Your task to perform on an android device: make emails show in primary in the gmail app Image 0: 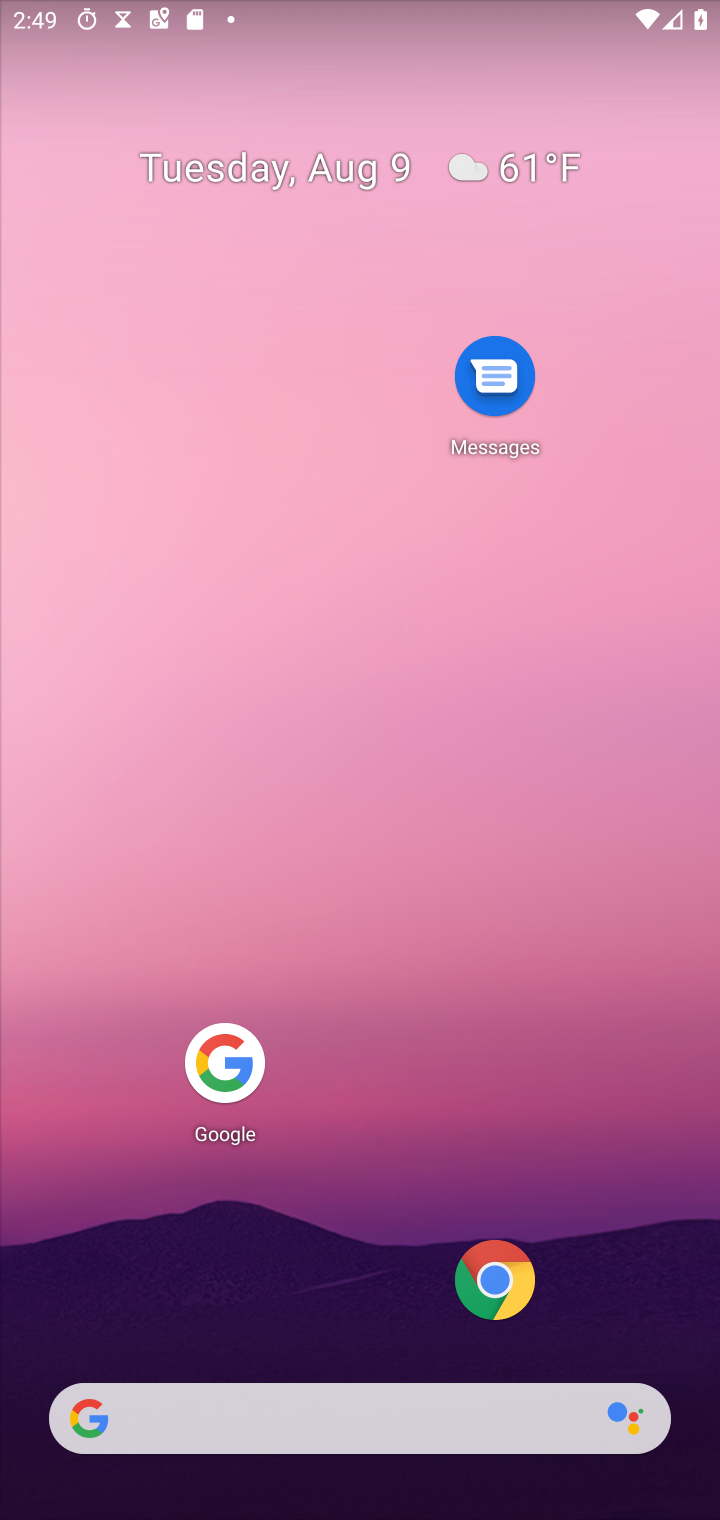
Step 0: drag from (338, 1392) to (601, 318)
Your task to perform on an android device: make emails show in primary in the gmail app Image 1: 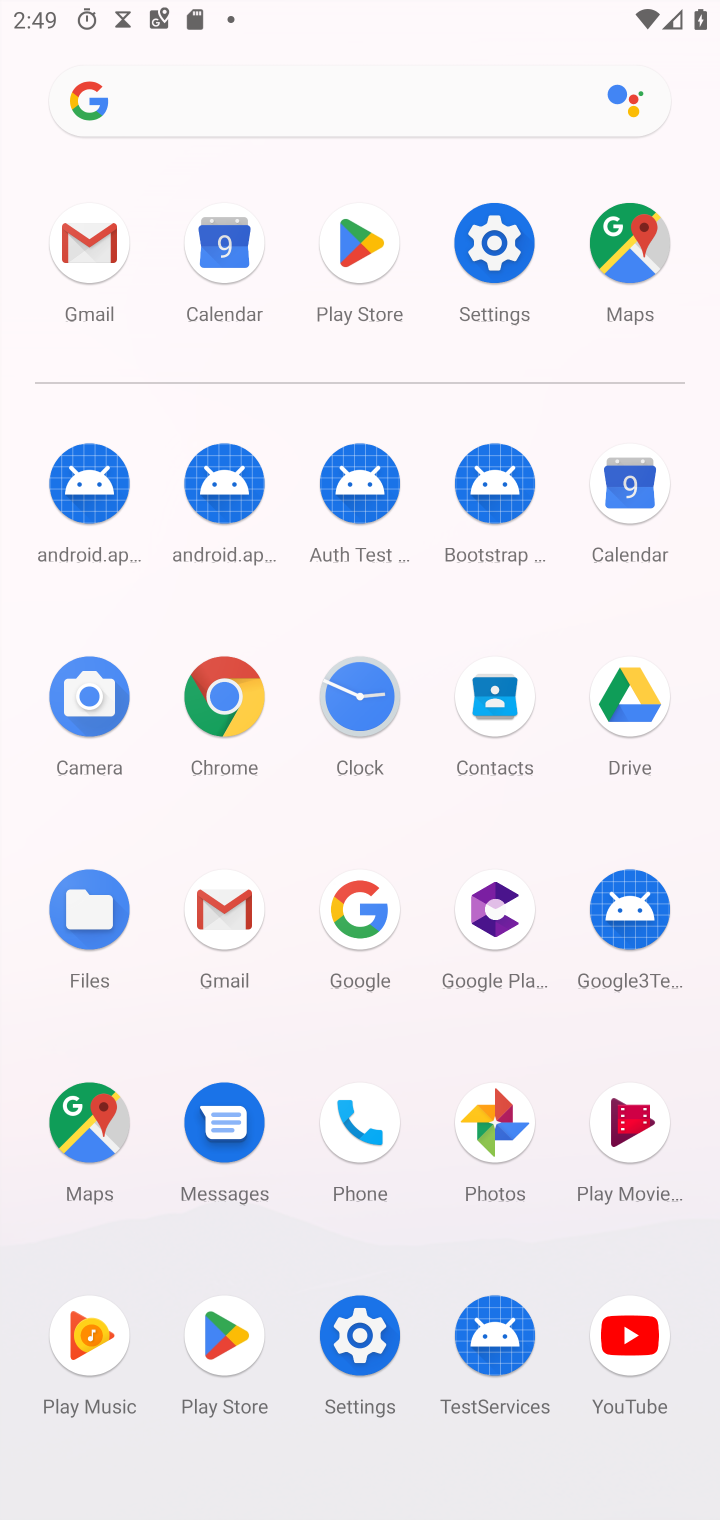
Step 1: click (87, 244)
Your task to perform on an android device: make emails show in primary in the gmail app Image 2: 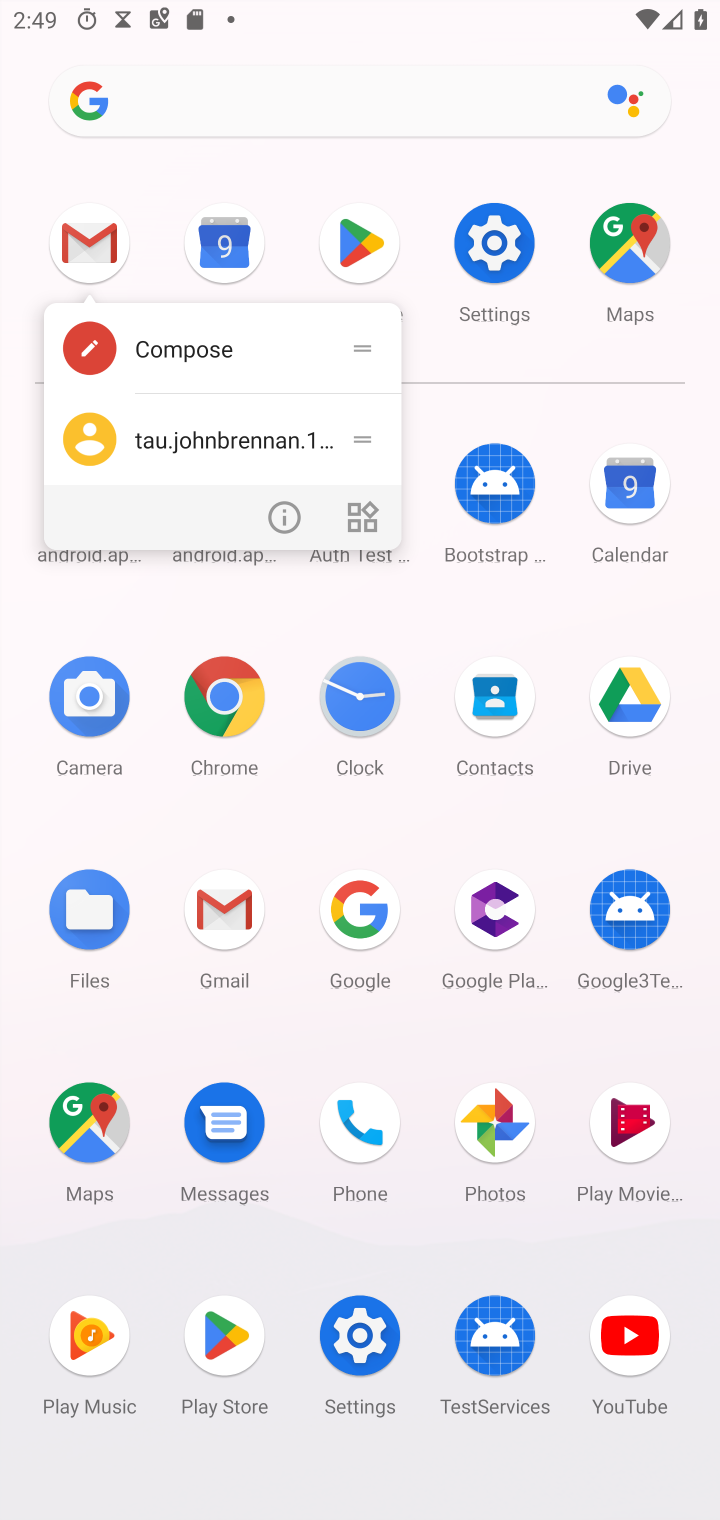
Step 2: click (87, 246)
Your task to perform on an android device: make emails show in primary in the gmail app Image 3: 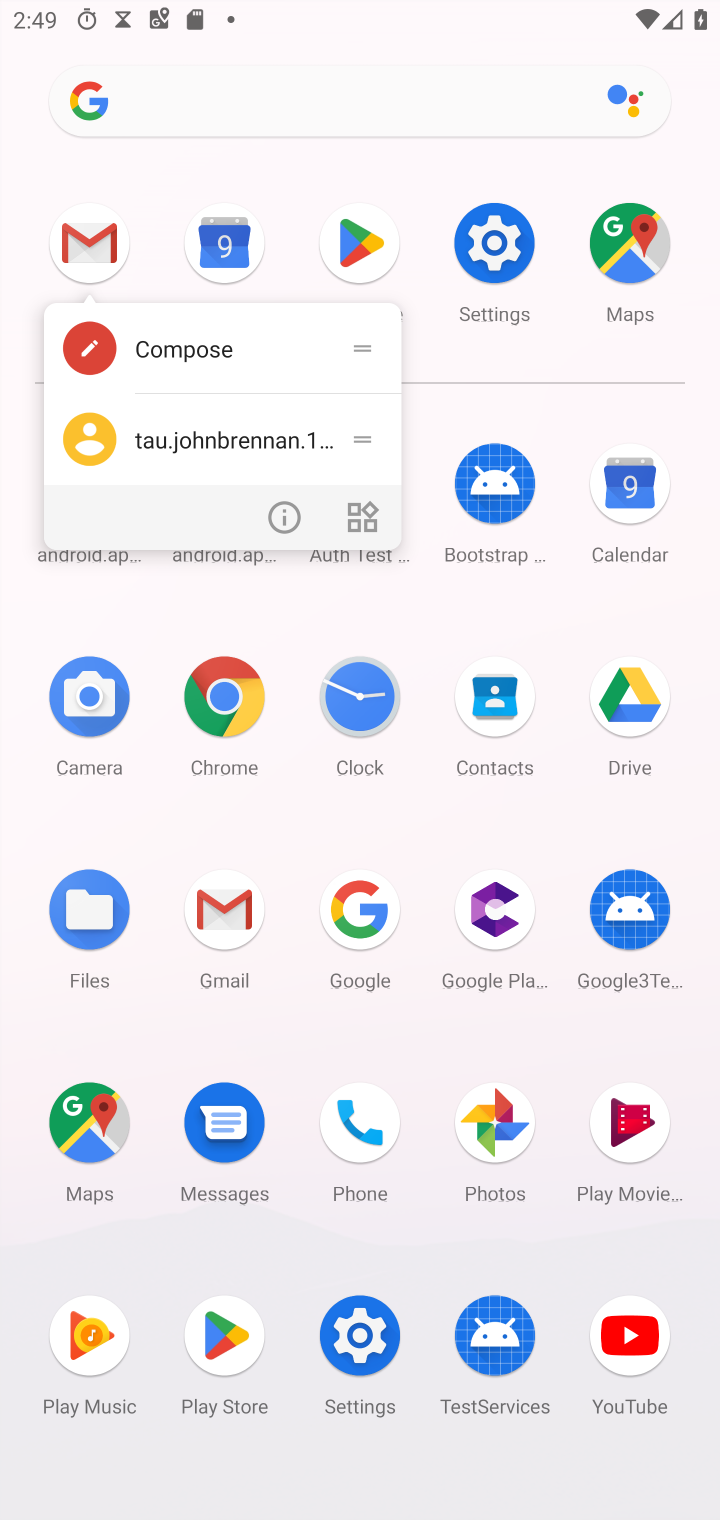
Step 3: click (87, 255)
Your task to perform on an android device: make emails show in primary in the gmail app Image 4: 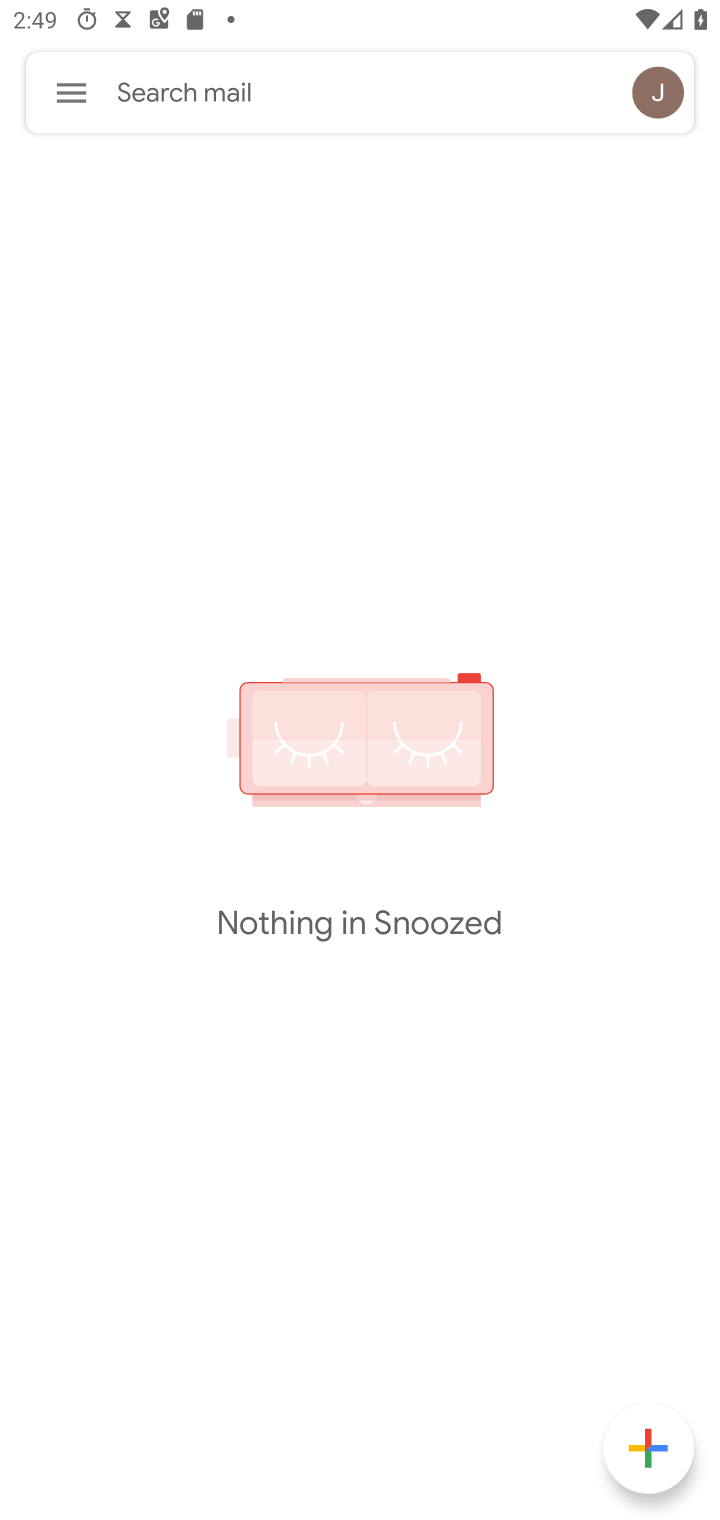
Step 4: click (65, 93)
Your task to perform on an android device: make emails show in primary in the gmail app Image 5: 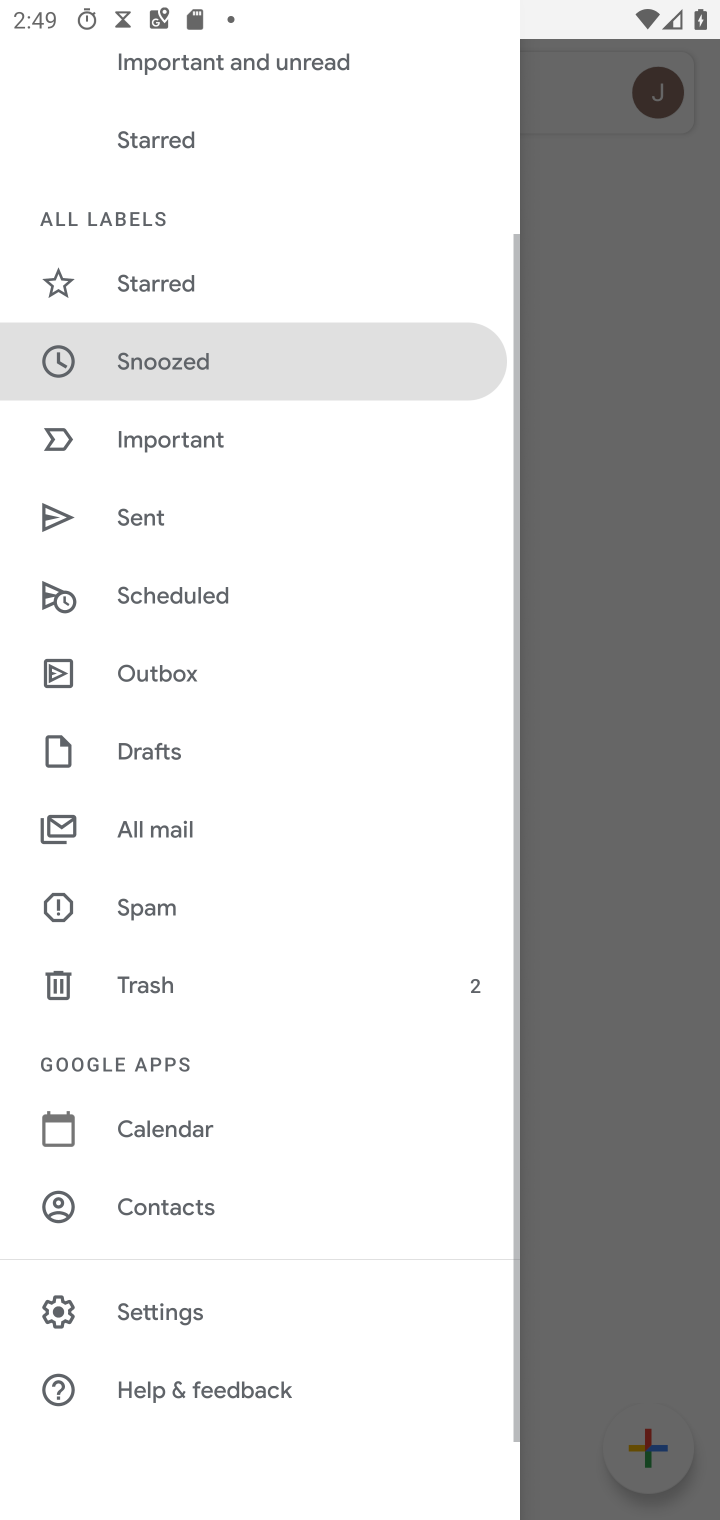
Step 5: click (207, 1314)
Your task to perform on an android device: make emails show in primary in the gmail app Image 6: 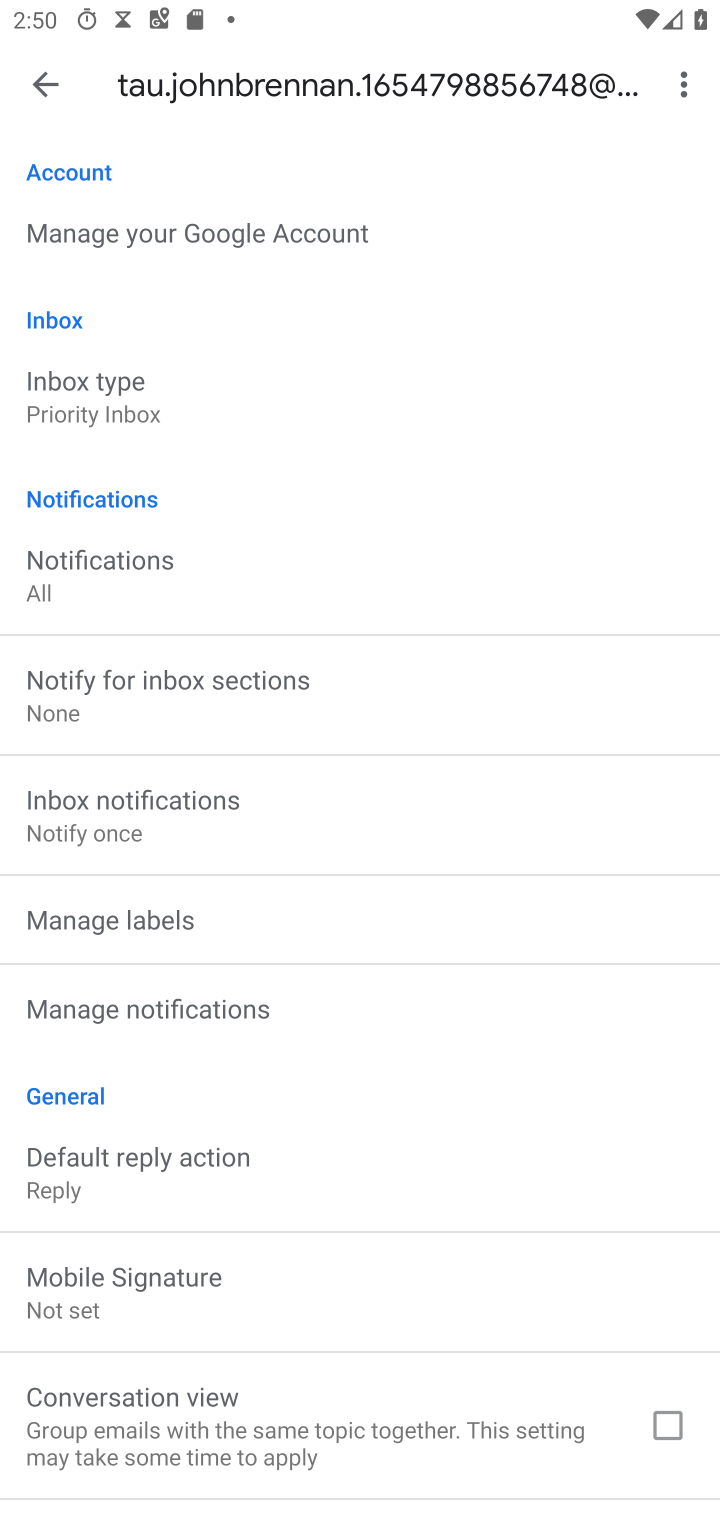
Step 6: task complete